Your task to perform on an android device: clear all cookies in the chrome app Image 0: 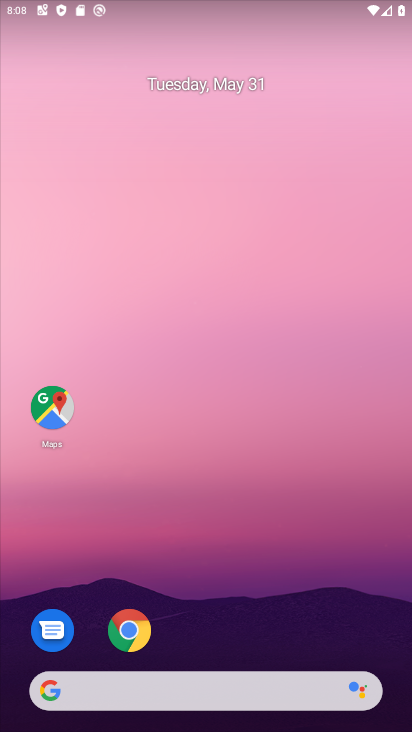
Step 0: click (121, 627)
Your task to perform on an android device: clear all cookies in the chrome app Image 1: 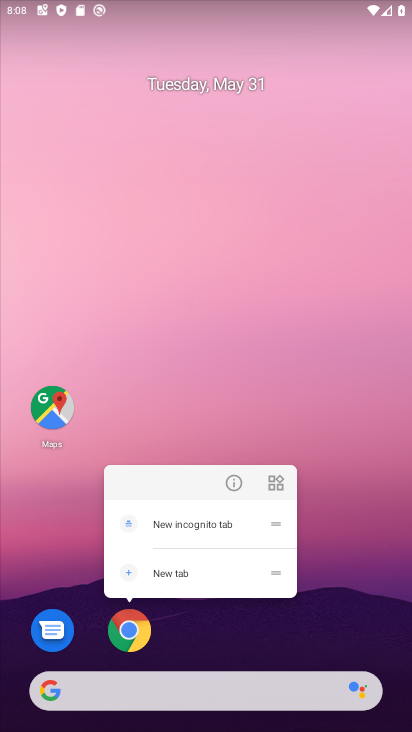
Step 1: click (121, 625)
Your task to perform on an android device: clear all cookies in the chrome app Image 2: 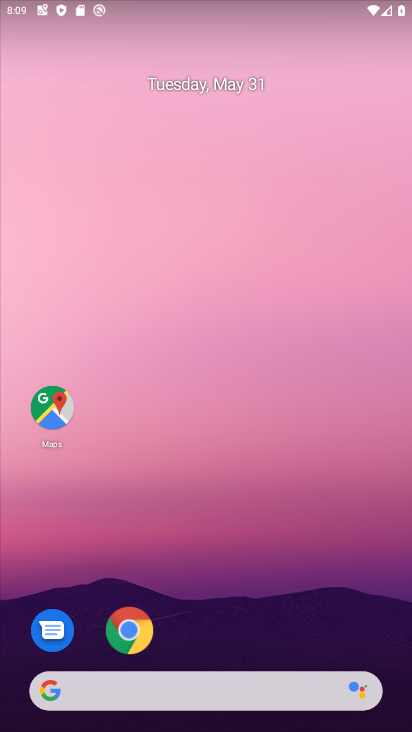
Step 2: click (122, 624)
Your task to perform on an android device: clear all cookies in the chrome app Image 3: 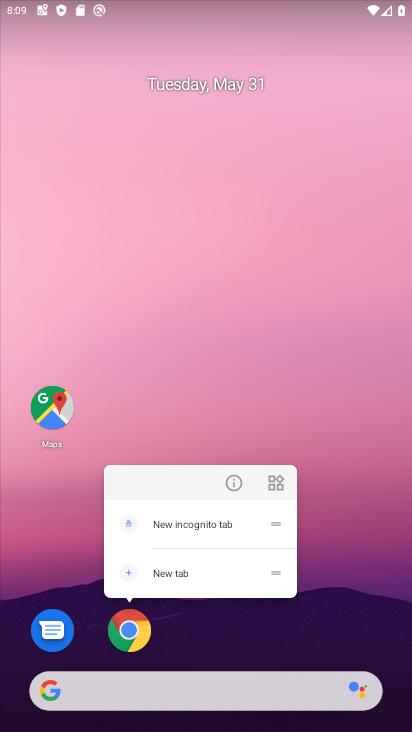
Step 3: click (137, 626)
Your task to perform on an android device: clear all cookies in the chrome app Image 4: 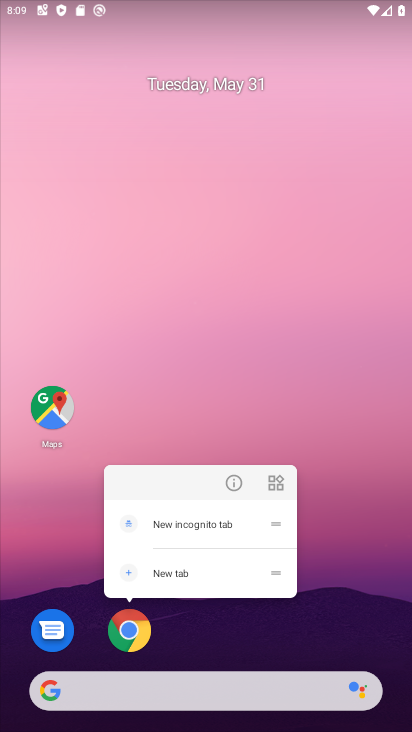
Step 4: click (136, 632)
Your task to perform on an android device: clear all cookies in the chrome app Image 5: 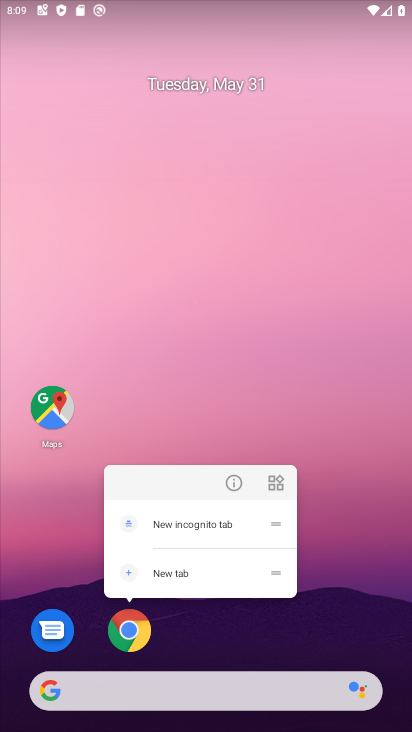
Step 5: click (136, 630)
Your task to perform on an android device: clear all cookies in the chrome app Image 6: 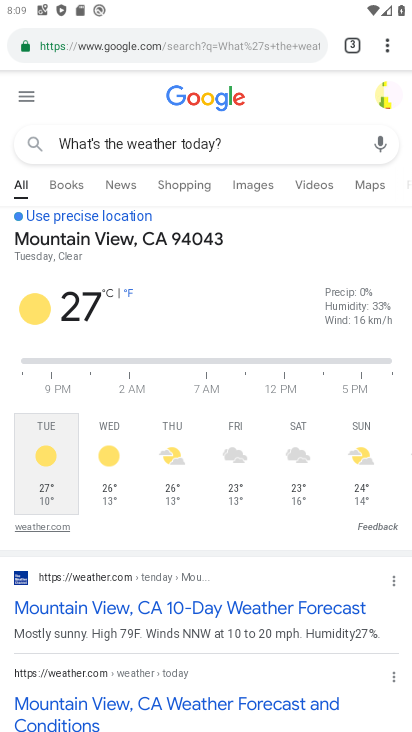
Step 6: click (387, 49)
Your task to perform on an android device: clear all cookies in the chrome app Image 7: 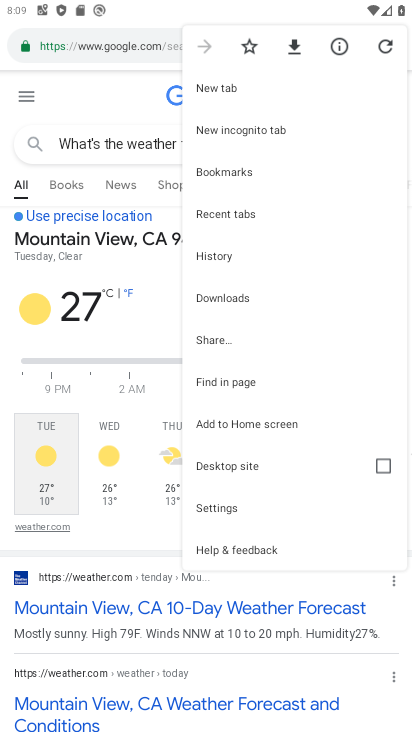
Step 7: click (227, 495)
Your task to perform on an android device: clear all cookies in the chrome app Image 8: 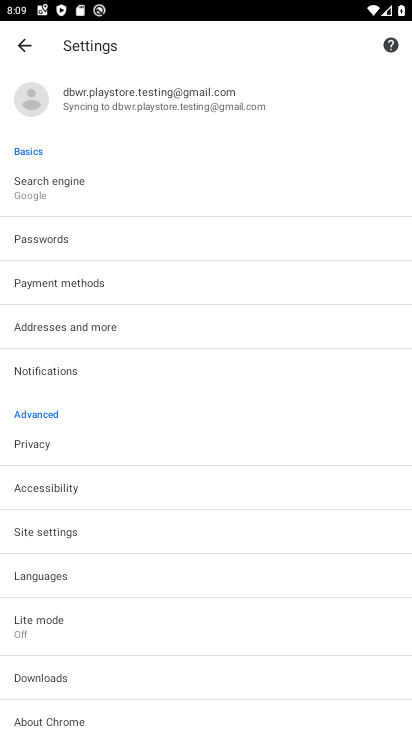
Step 8: click (55, 431)
Your task to perform on an android device: clear all cookies in the chrome app Image 9: 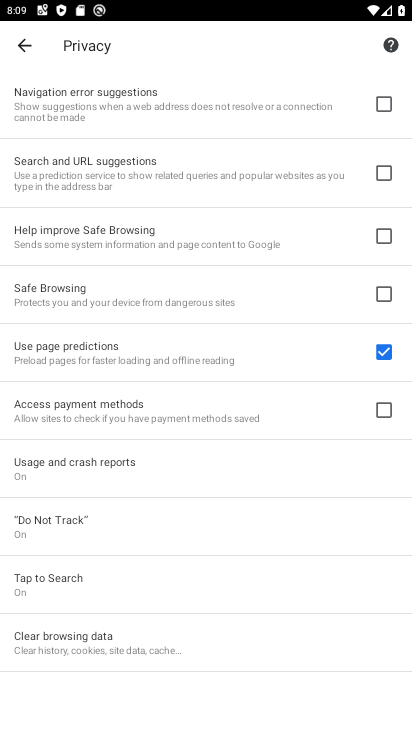
Step 9: drag from (160, 617) to (204, 405)
Your task to perform on an android device: clear all cookies in the chrome app Image 10: 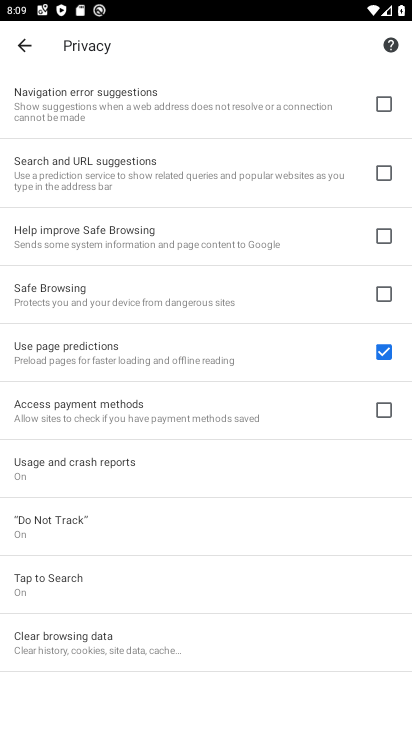
Step 10: click (147, 634)
Your task to perform on an android device: clear all cookies in the chrome app Image 11: 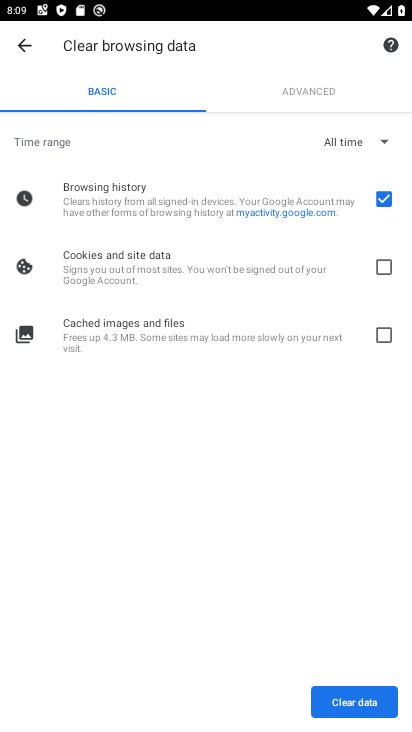
Step 11: click (358, 688)
Your task to perform on an android device: clear all cookies in the chrome app Image 12: 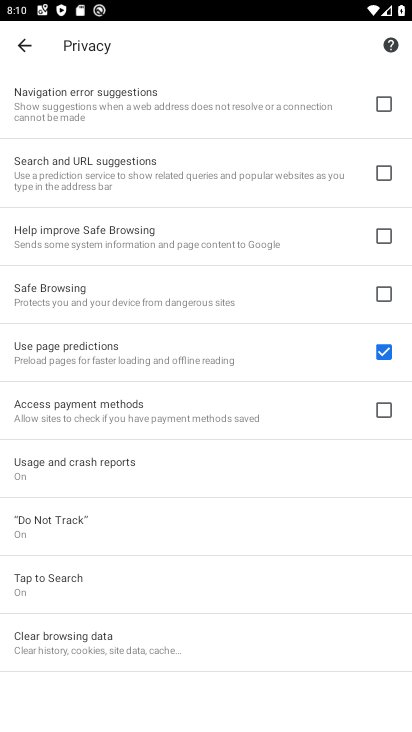
Step 12: task complete